Your task to perform on an android device: toggle show notifications on the lock screen Image 0: 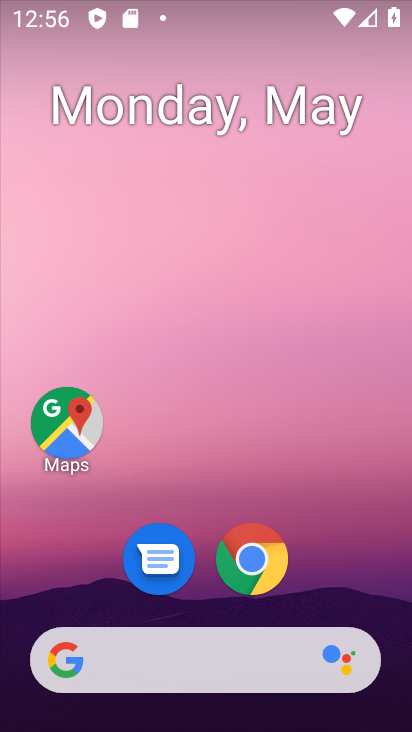
Step 0: drag from (177, 714) to (159, 148)
Your task to perform on an android device: toggle show notifications on the lock screen Image 1: 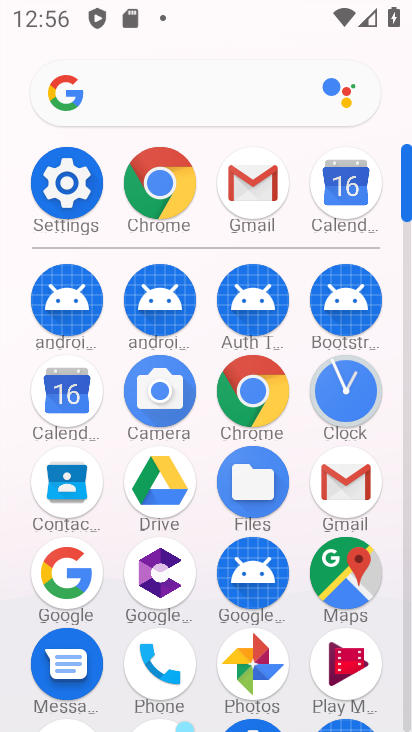
Step 1: click (74, 194)
Your task to perform on an android device: toggle show notifications on the lock screen Image 2: 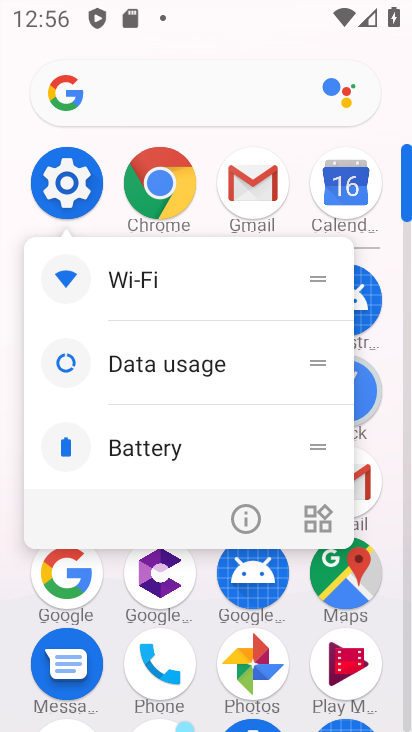
Step 2: click (74, 194)
Your task to perform on an android device: toggle show notifications on the lock screen Image 3: 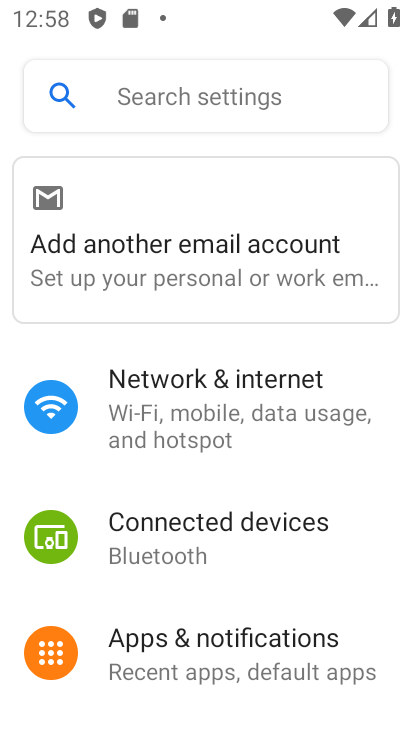
Step 3: click (311, 643)
Your task to perform on an android device: toggle show notifications on the lock screen Image 4: 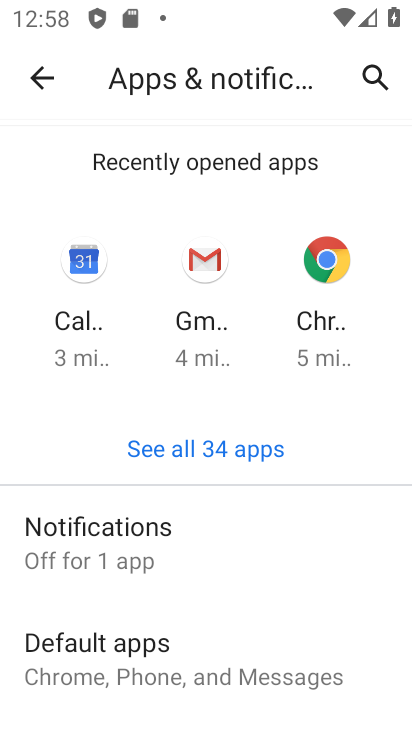
Step 4: click (135, 524)
Your task to perform on an android device: toggle show notifications on the lock screen Image 5: 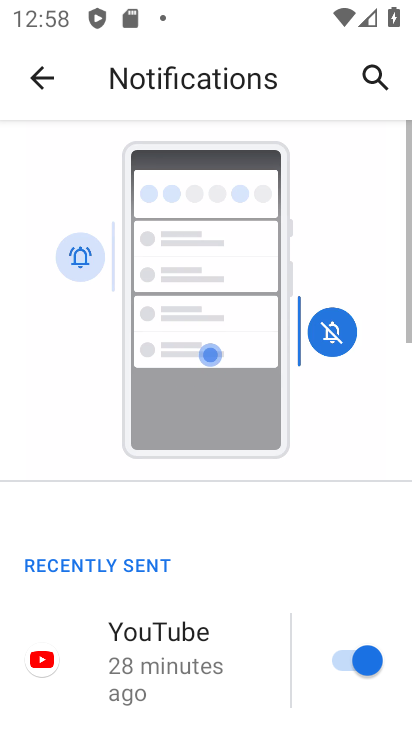
Step 5: drag from (241, 662) to (212, 165)
Your task to perform on an android device: toggle show notifications on the lock screen Image 6: 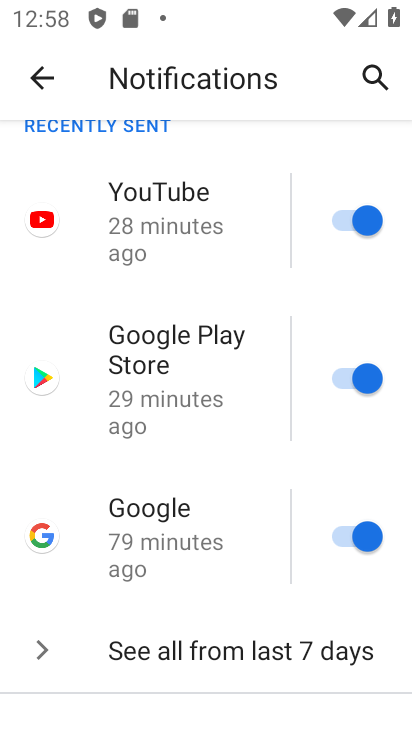
Step 6: drag from (221, 628) to (196, 240)
Your task to perform on an android device: toggle show notifications on the lock screen Image 7: 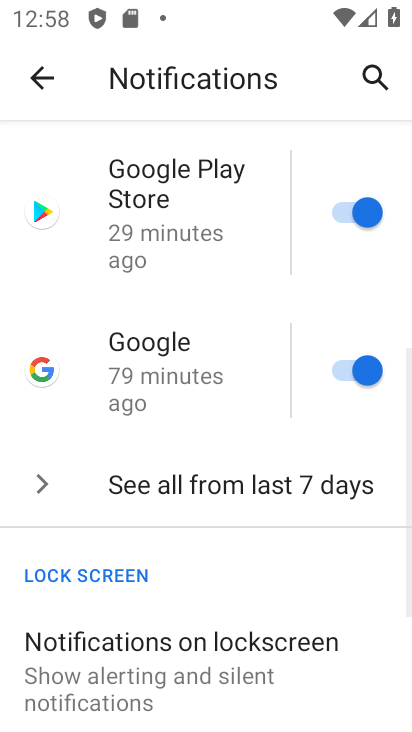
Step 7: click (153, 650)
Your task to perform on an android device: toggle show notifications on the lock screen Image 8: 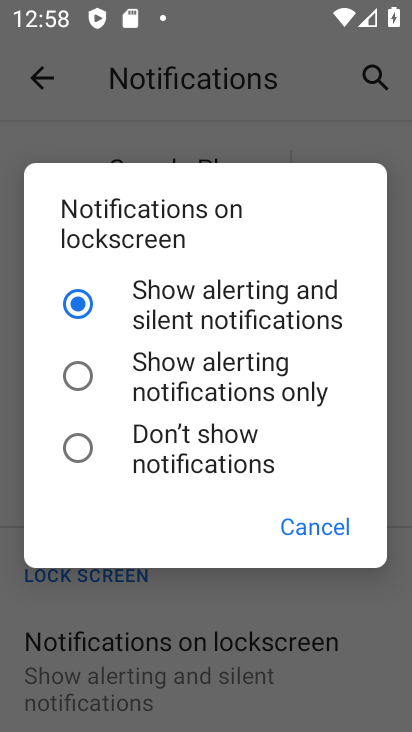
Step 8: click (204, 443)
Your task to perform on an android device: toggle show notifications on the lock screen Image 9: 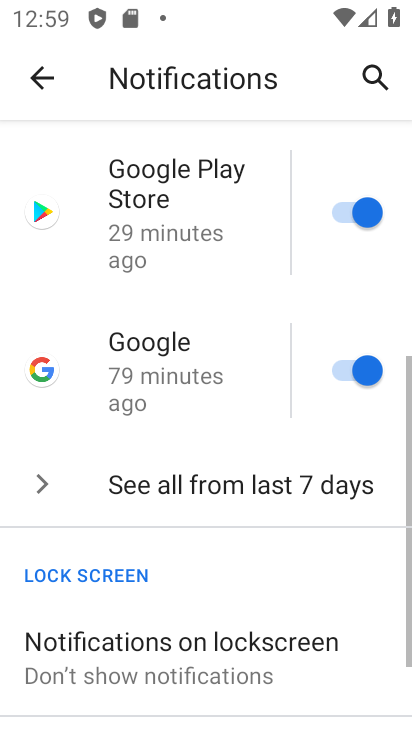
Step 9: task complete